Your task to perform on an android device: Search for seafood restaurants on Google Maps Image 0: 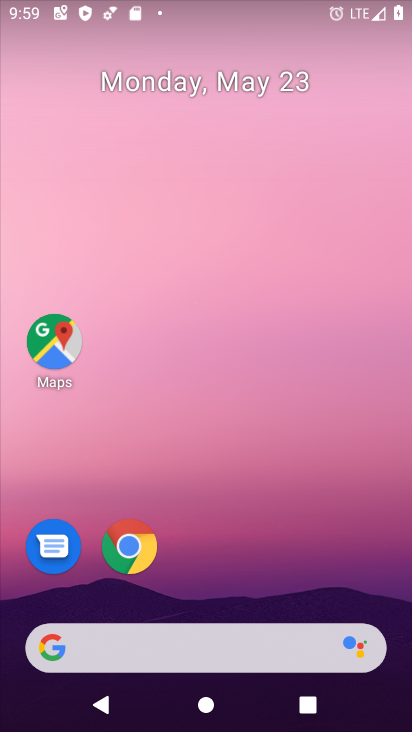
Step 0: click (52, 342)
Your task to perform on an android device: Search for seafood restaurants on Google Maps Image 1: 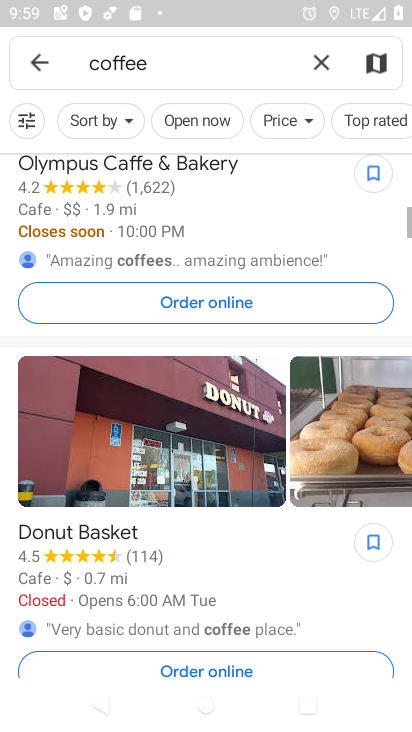
Step 1: click (317, 64)
Your task to perform on an android device: Search for seafood restaurants on Google Maps Image 2: 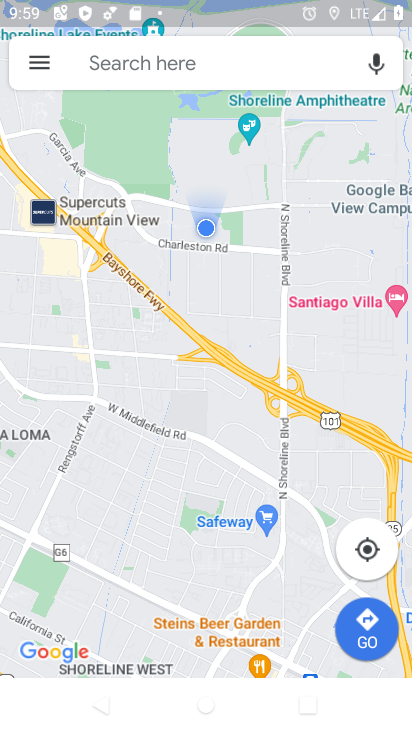
Step 2: click (145, 62)
Your task to perform on an android device: Search for seafood restaurants on Google Maps Image 3: 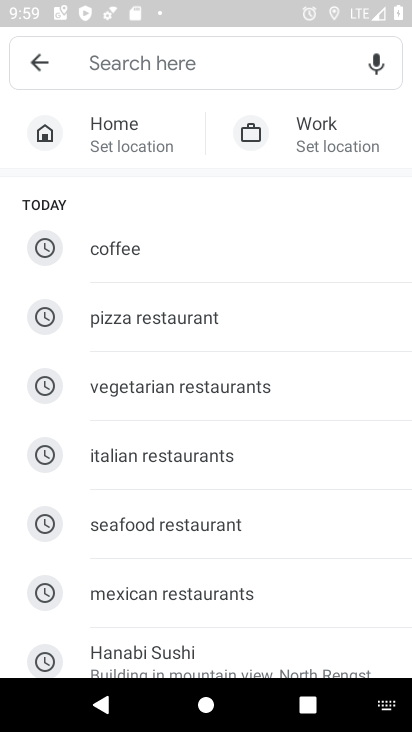
Step 3: type "seafood restaurants"
Your task to perform on an android device: Search for seafood restaurants on Google Maps Image 4: 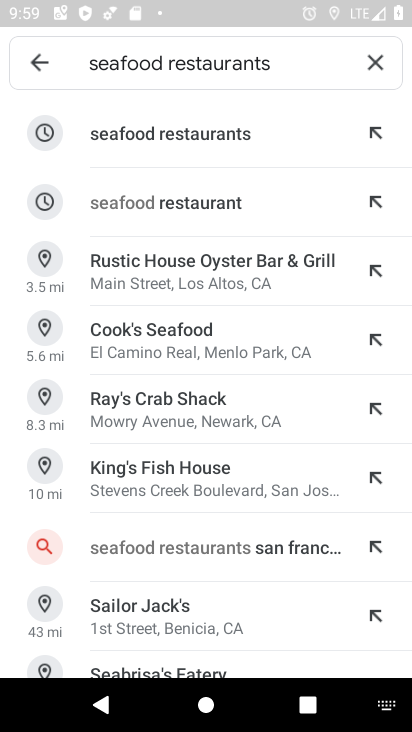
Step 4: click (126, 122)
Your task to perform on an android device: Search for seafood restaurants on Google Maps Image 5: 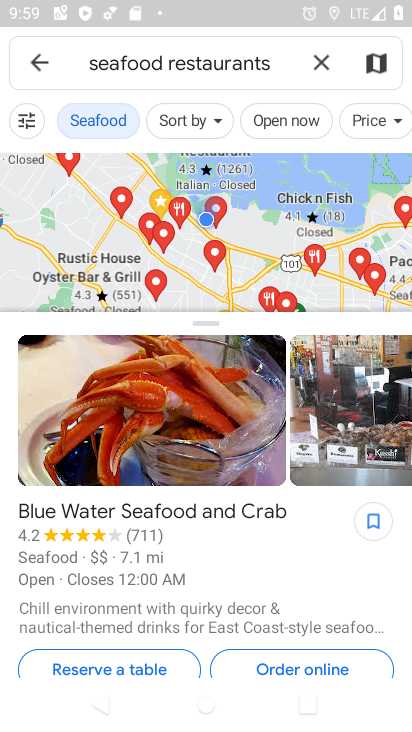
Step 5: task complete